Your task to perform on an android device: Go to privacy settings Image 0: 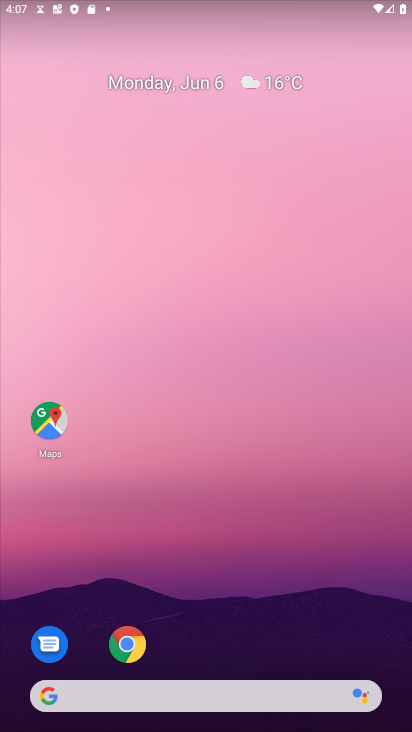
Step 0: drag from (161, 727) to (98, 42)
Your task to perform on an android device: Go to privacy settings Image 1: 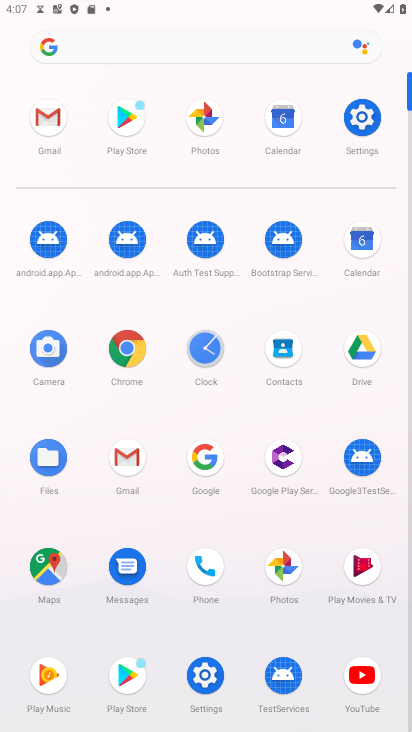
Step 1: click (203, 682)
Your task to perform on an android device: Go to privacy settings Image 2: 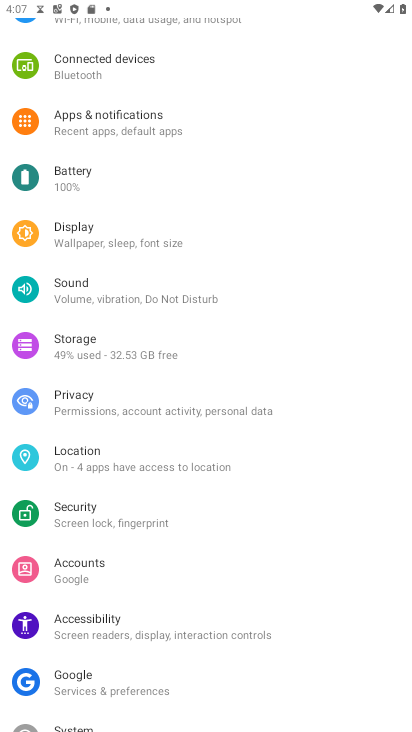
Step 2: click (84, 414)
Your task to perform on an android device: Go to privacy settings Image 3: 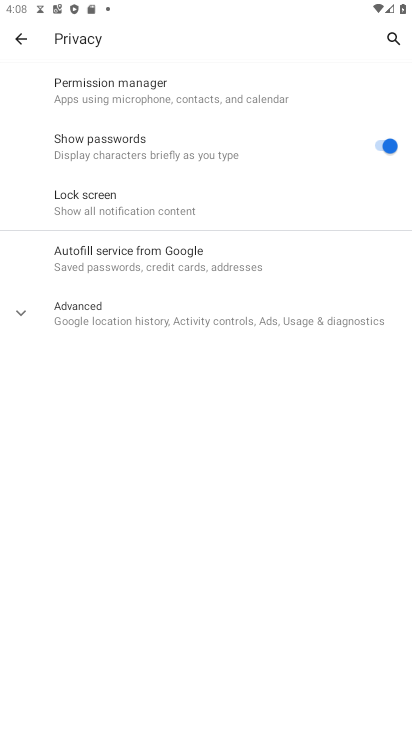
Step 3: task complete